Your task to perform on an android device: check out phone information Image 0: 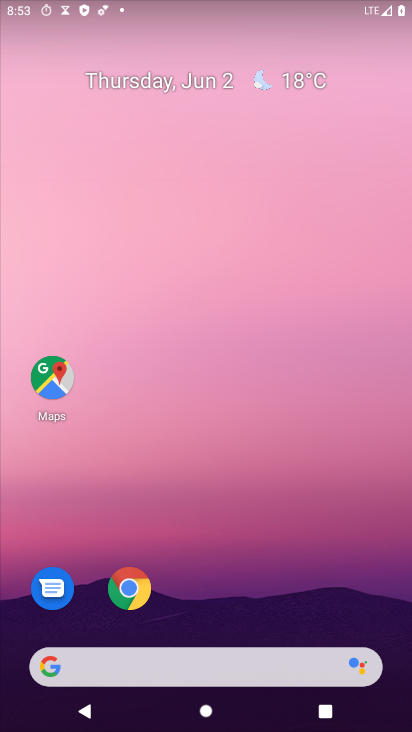
Step 0: drag from (240, 593) to (237, 176)
Your task to perform on an android device: check out phone information Image 1: 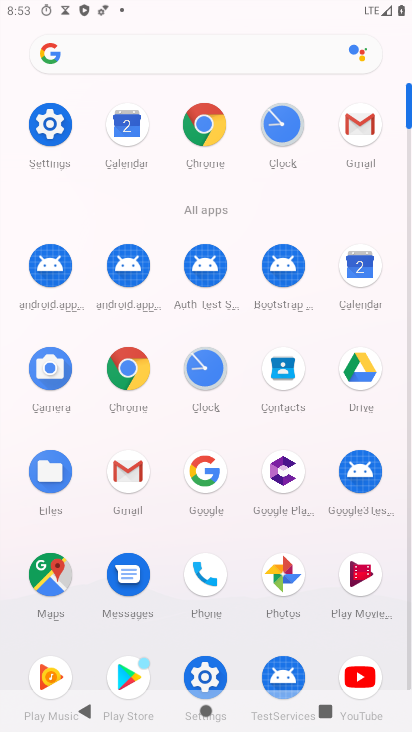
Step 1: click (58, 121)
Your task to perform on an android device: check out phone information Image 2: 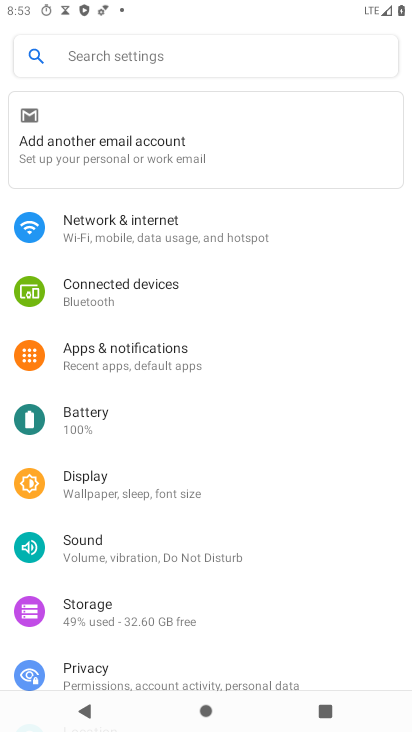
Step 2: drag from (135, 517) to (201, 29)
Your task to perform on an android device: check out phone information Image 3: 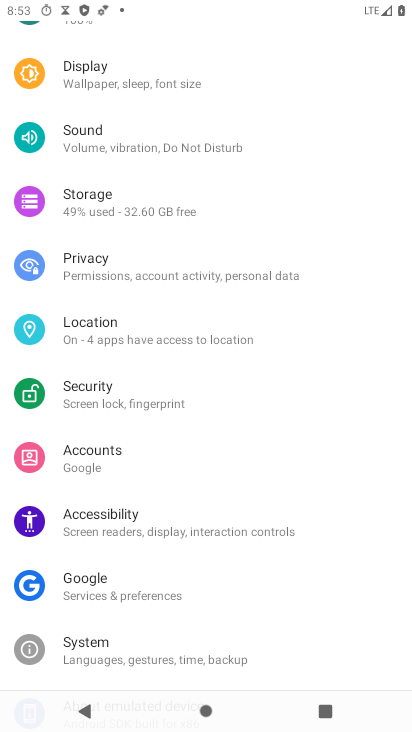
Step 3: drag from (190, 653) to (257, 84)
Your task to perform on an android device: check out phone information Image 4: 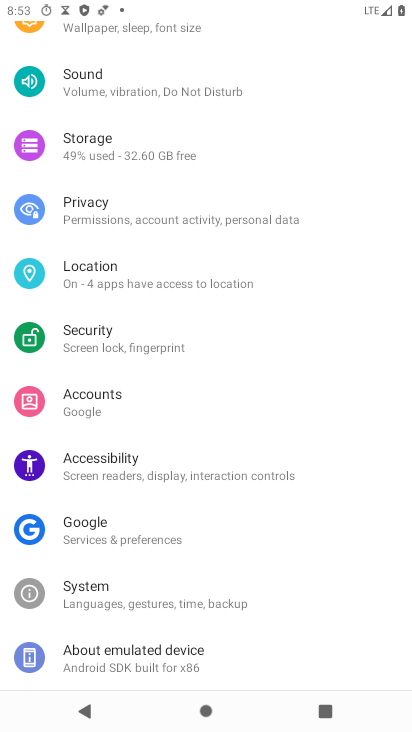
Step 4: click (97, 661)
Your task to perform on an android device: check out phone information Image 5: 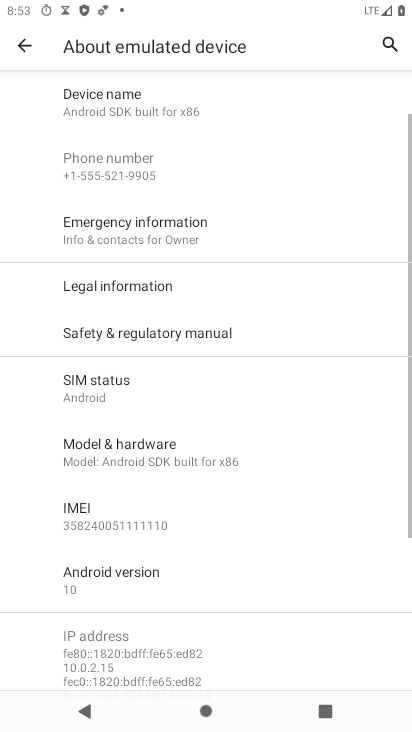
Step 5: task complete